Your task to perform on an android device: change notifications settings Image 0: 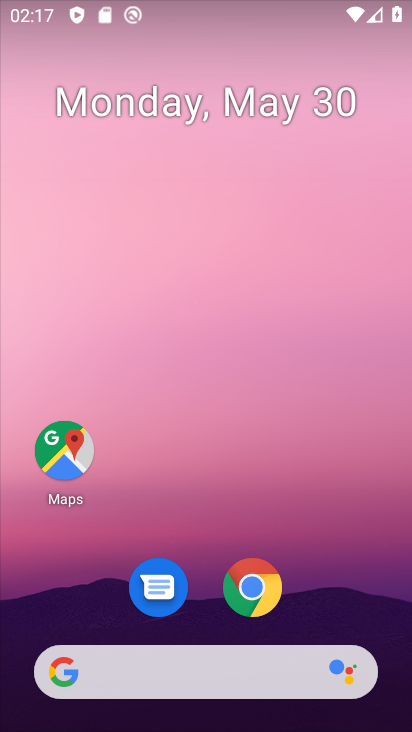
Step 0: drag from (144, 725) to (112, 26)
Your task to perform on an android device: change notifications settings Image 1: 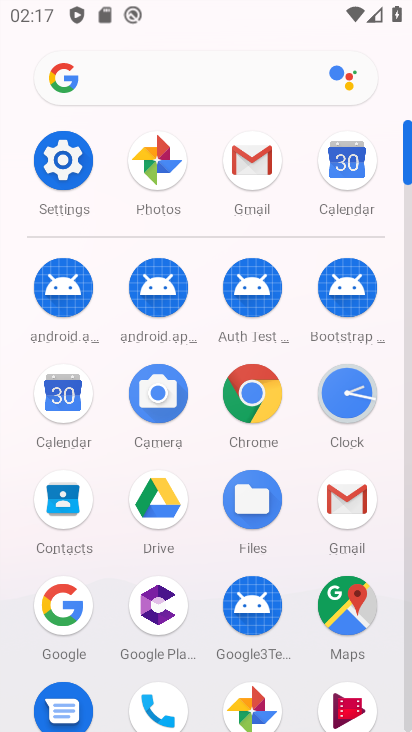
Step 1: click (73, 174)
Your task to perform on an android device: change notifications settings Image 2: 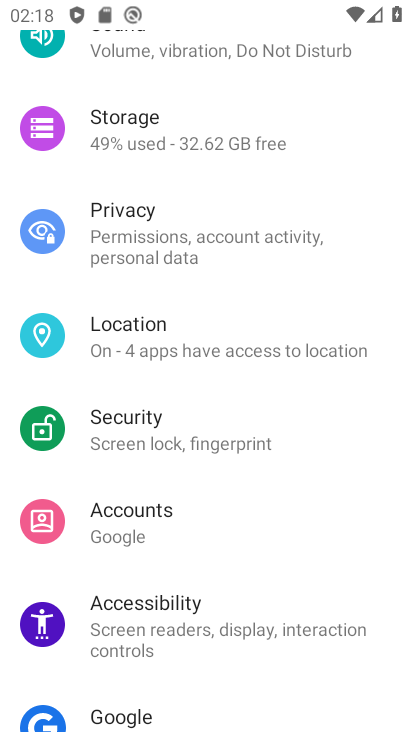
Step 2: drag from (142, 99) to (247, 522)
Your task to perform on an android device: change notifications settings Image 3: 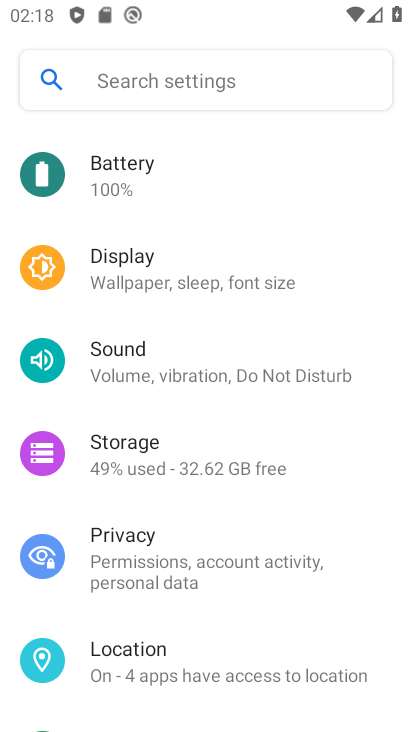
Step 3: drag from (201, 233) to (227, 559)
Your task to perform on an android device: change notifications settings Image 4: 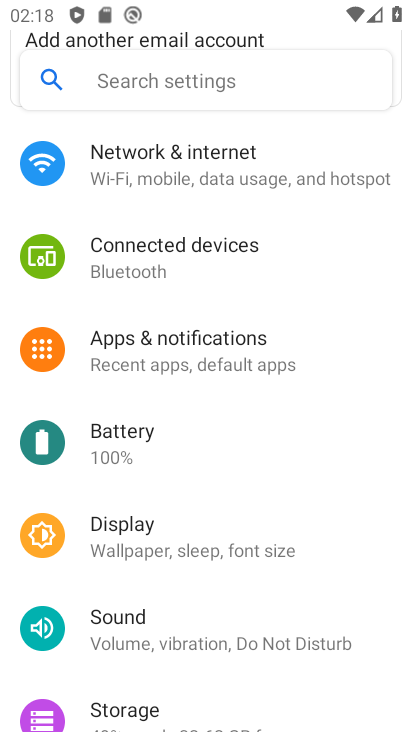
Step 4: click (211, 343)
Your task to perform on an android device: change notifications settings Image 5: 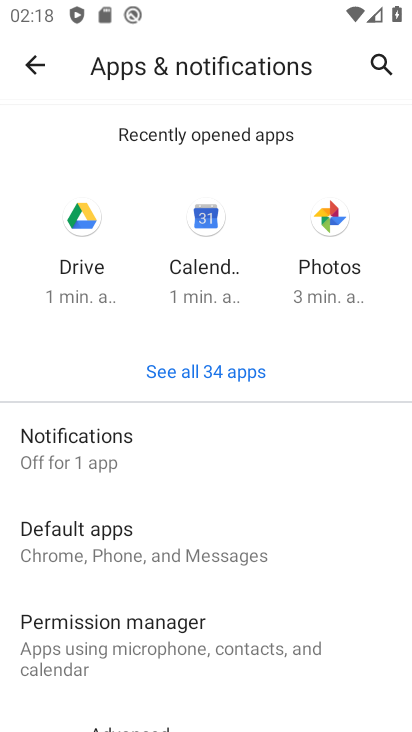
Step 5: click (38, 457)
Your task to perform on an android device: change notifications settings Image 6: 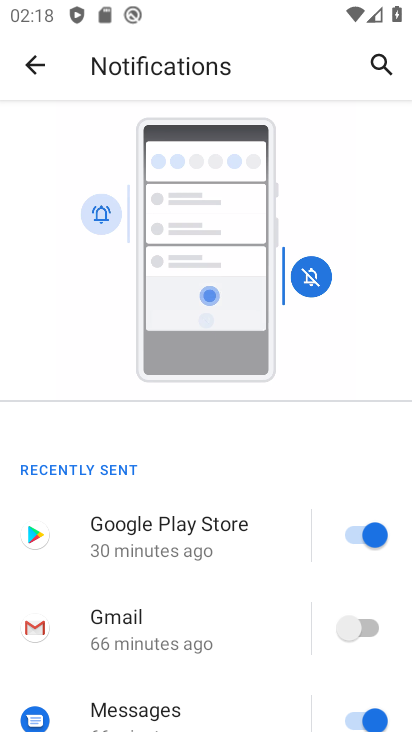
Step 6: click (366, 630)
Your task to perform on an android device: change notifications settings Image 7: 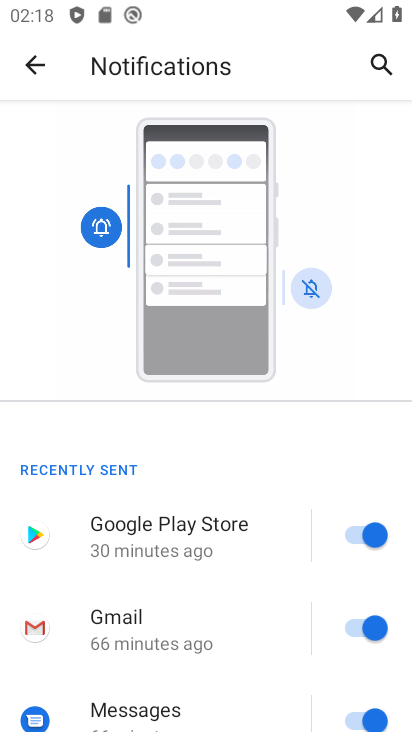
Step 7: task complete